Your task to perform on an android device: Open Maps and search for coffee Image 0: 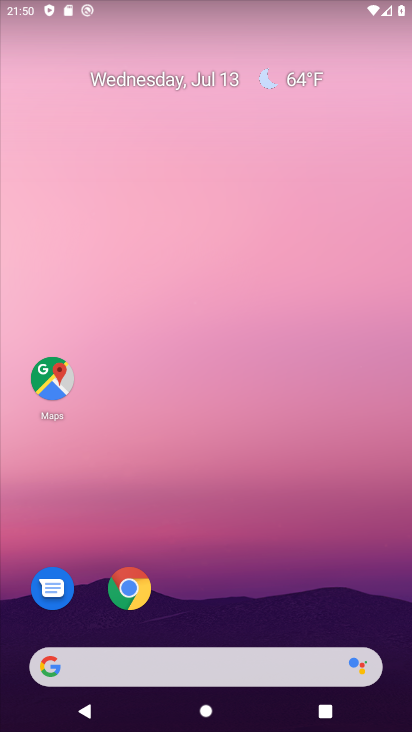
Step 0: click (36, 397)
Your task to perform on an android device: Open Maps and search for coffee Image 1: 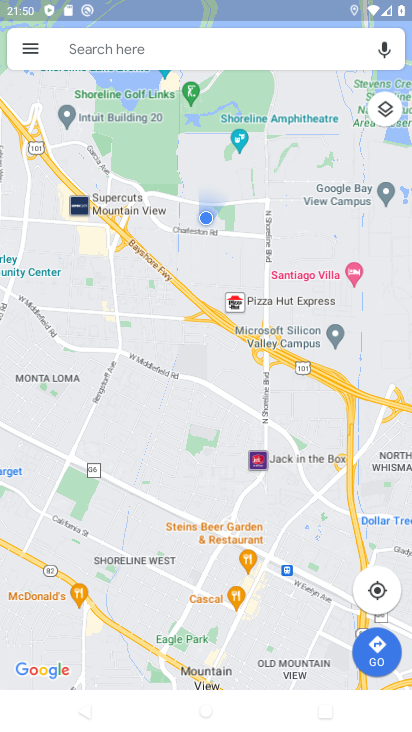
Step 1: click (121, 45)
Your task to perform on an android device: Open Maps and search for coffee Image 2: 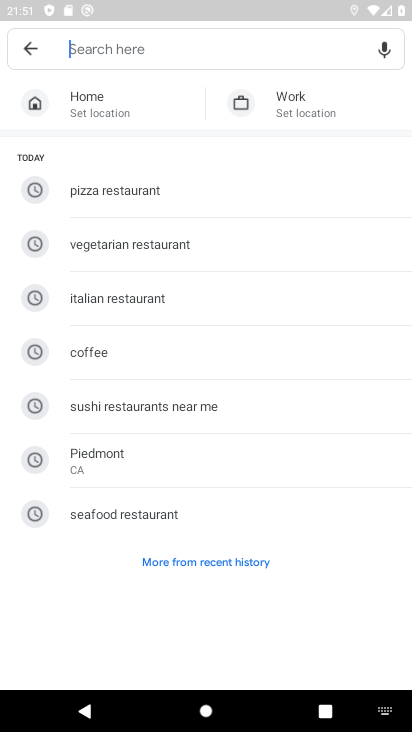
Step 2: click (110, 346)
Your task to perform on an android device: Open Maps and search for coffee Image 3: 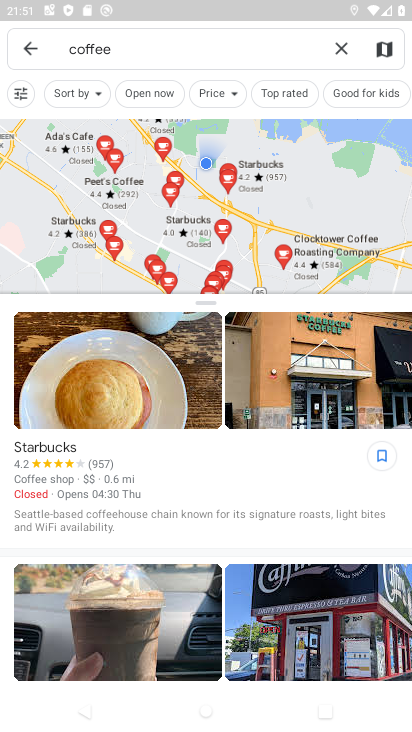
Step 3: task complete